Your task to perform on an android device: turn on wifi Image 0: 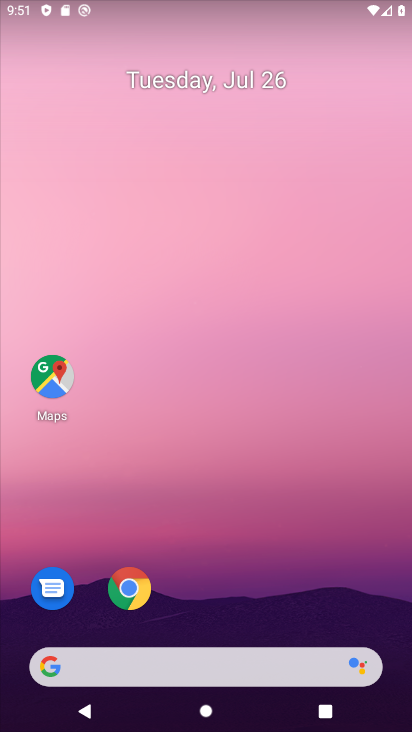
Step 0: drag from (240, 33) to (263, 124)
Your task to perform on an android device: turn on wifi Image 1: 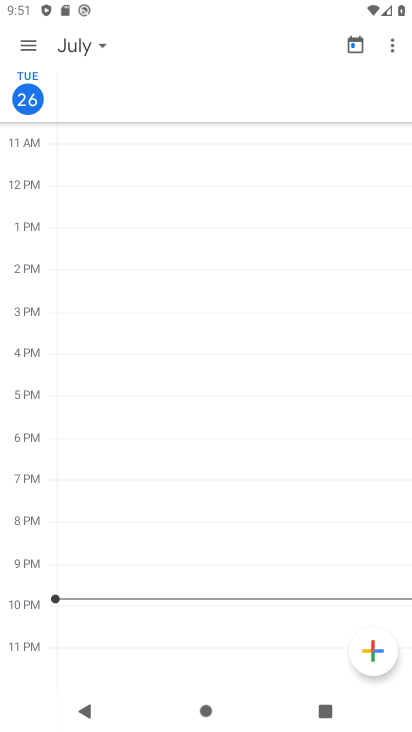
Step 1: press home button
Your task to perform on an android device: turn on wifi Image 2: 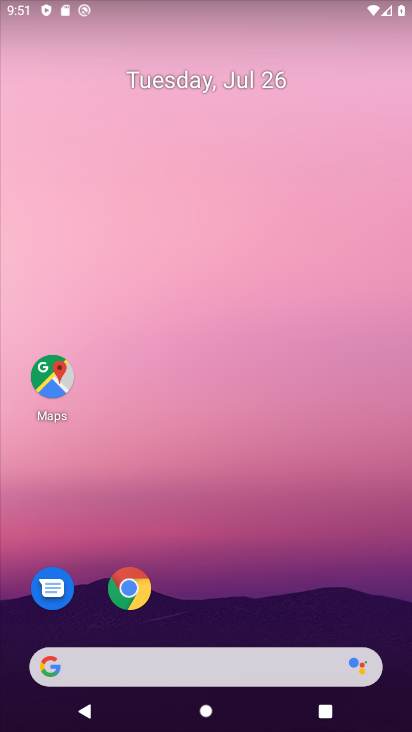
Step 2: drag from (262, 622) to (203, 158)
Your task to perform on an android device: turn on wifi Image 3: 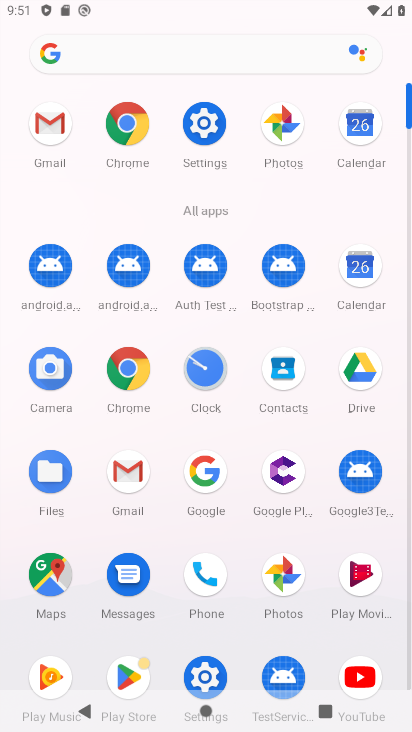
Step 3: click (204, 133)
Your task to perform on an android device: turn on wifi Image 4: 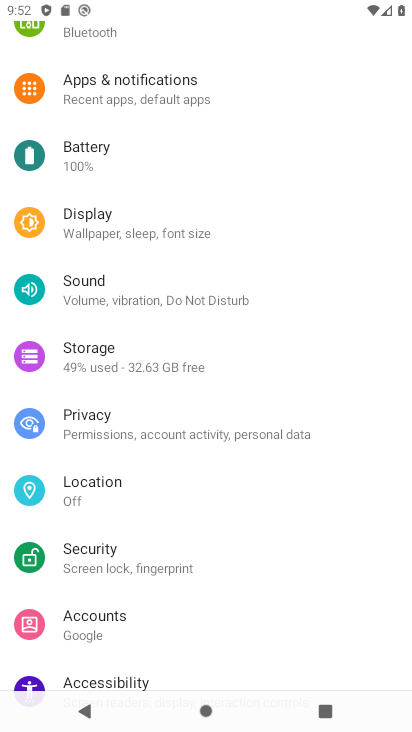
Step 4: drag from (185, 145) to (250, 731)
Your task to perform on an android device: turn on wifi Image 5: 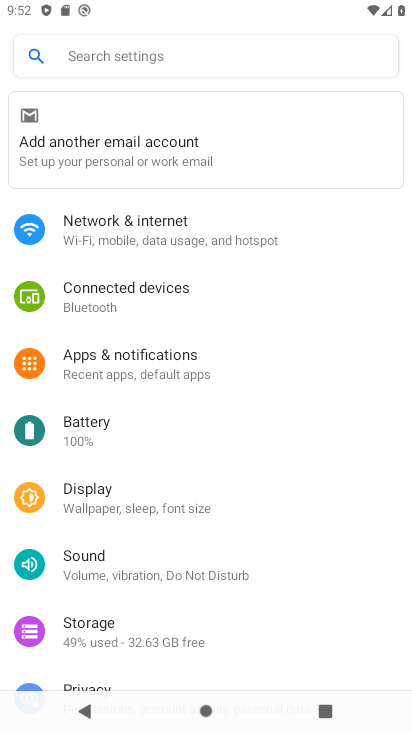
Step 5: click (200, 217)
Your task to perform on an android device: turn on wifi Image 6: 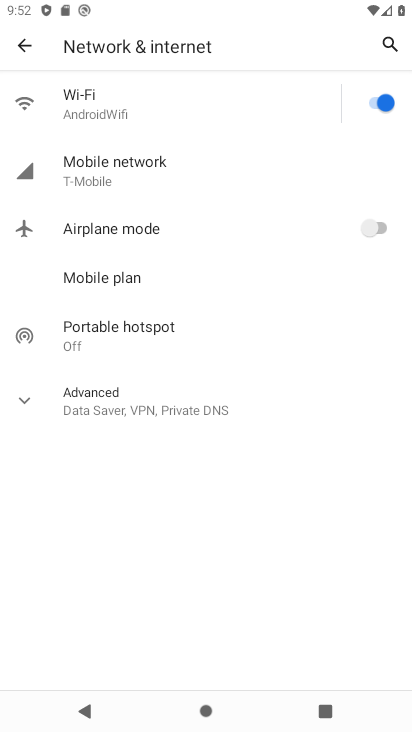
Step 6: task complete